Your task to perform on an android device: check google app version Image 0: 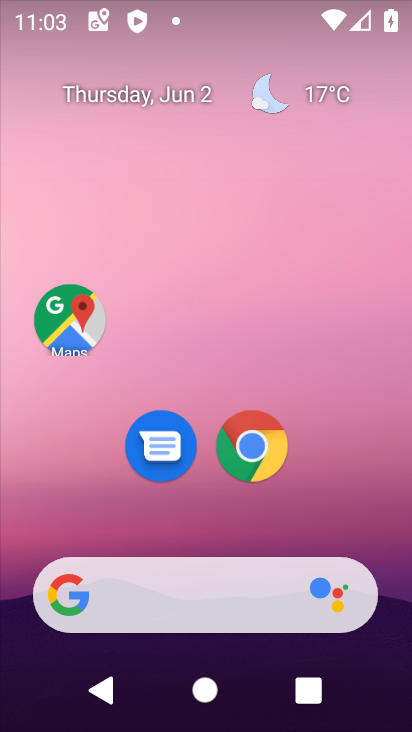
Step 0: drag from (381, 515) to (385, 235)
Your task to perform on an android device: check google app version Image 1: 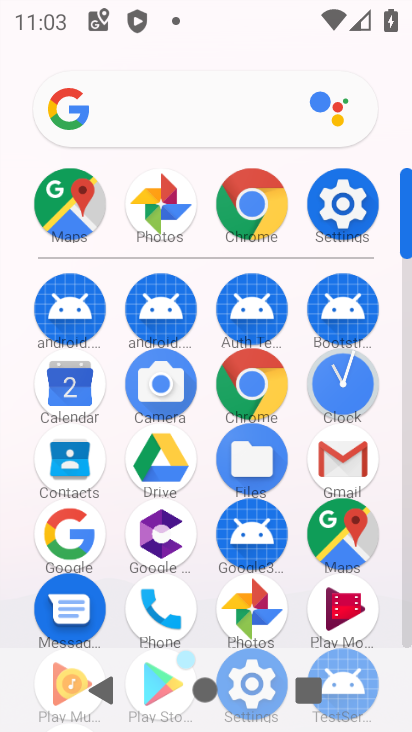
Step 1: click (84, 533)
Your task to perform on an android device: check google app version Image 2: 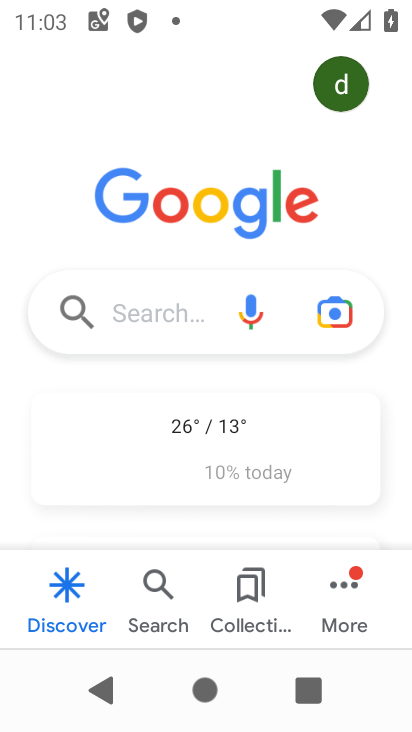
Step 2: click (344, 636)
Your task to perform on an android device: check google app version Image 3: 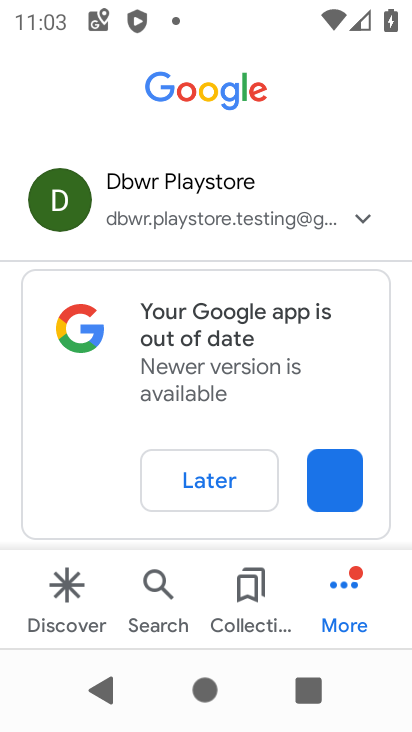
Step 3: click (346, 616)
Your task to perform on an android device: check google app version Image 4: 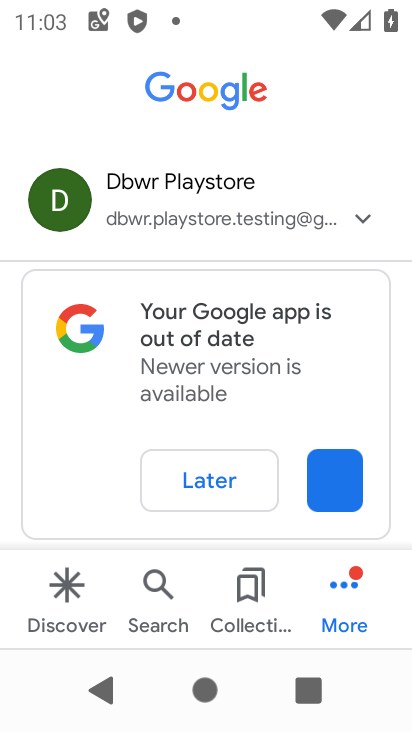
Step 4: click (353, 582)
Your task to perform on an android device: check google app version Image 5: 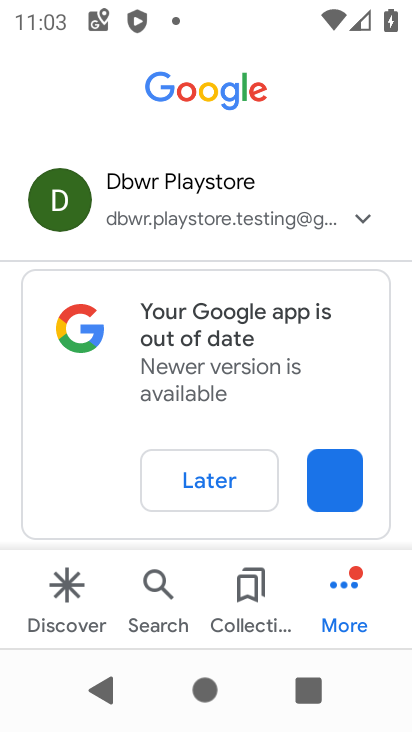
Step 5: drag from (354, 357) to (354, 163)
Your task to perform on an android device: check google app version Image 6: 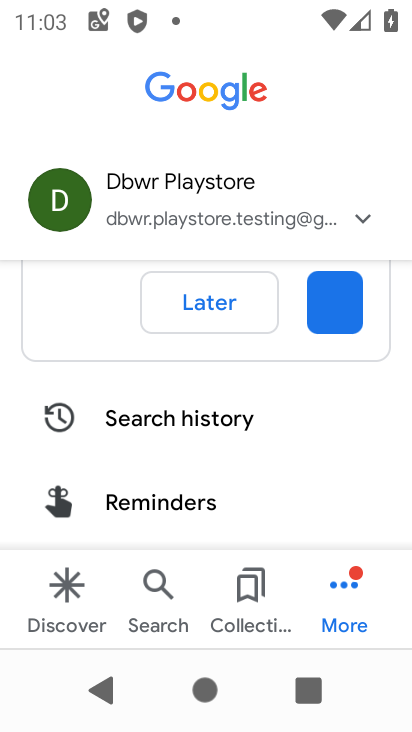
Step 6: drag from (282, 485) to (280, 262)
Your task to perform on an android device: check google app version Image 7: 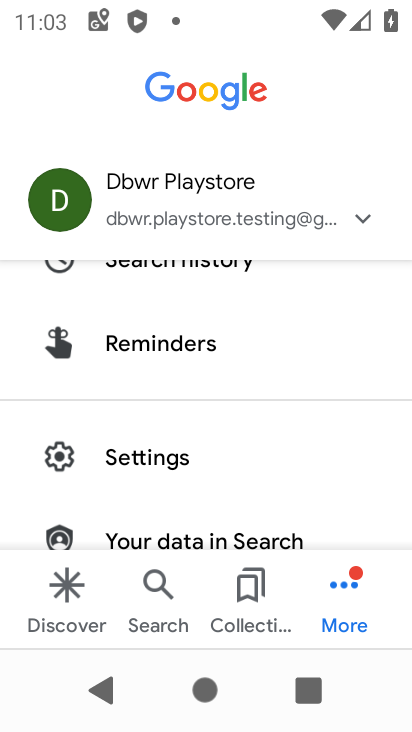
Step 7: click (195, 470)
Your task to perform on an android device: check google app version Image 8: 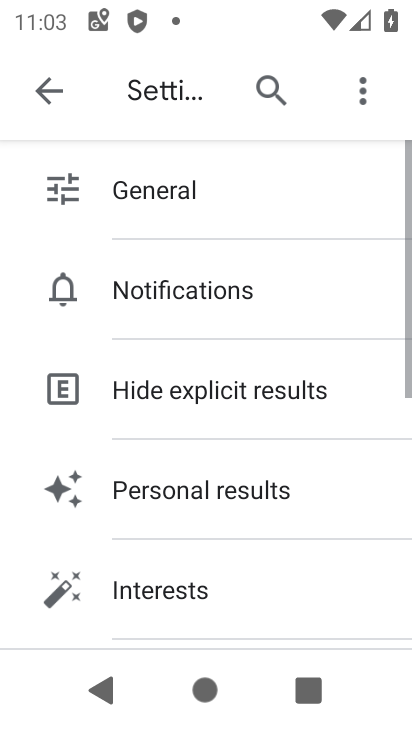
Step 8: drag from (312, 536) to (348, 371)
Your task to perform on an android device: check google app version Image 9: 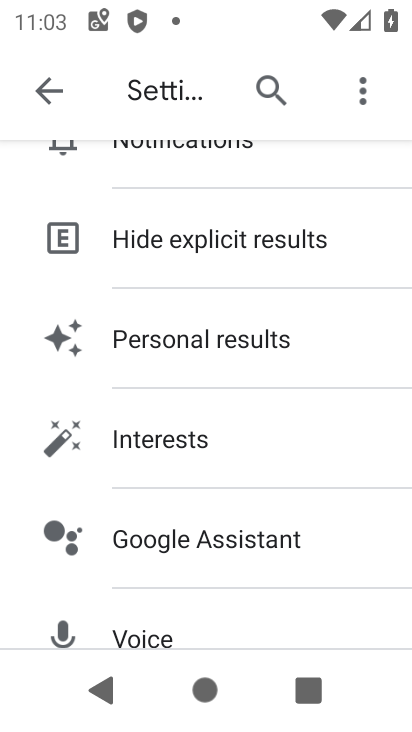
Step 9: drag from (350, 525) to (352, 270)
Your task to perform on an android device: check google app version Image 10: 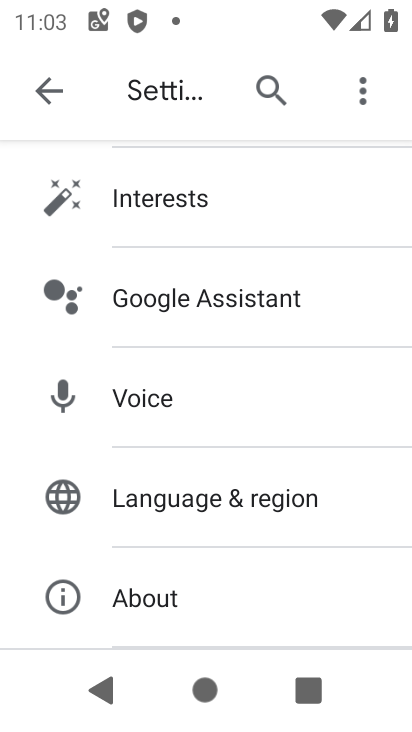
Step 10: click (251, 604)
Your task to perform on an android device: check google app version Image 11: 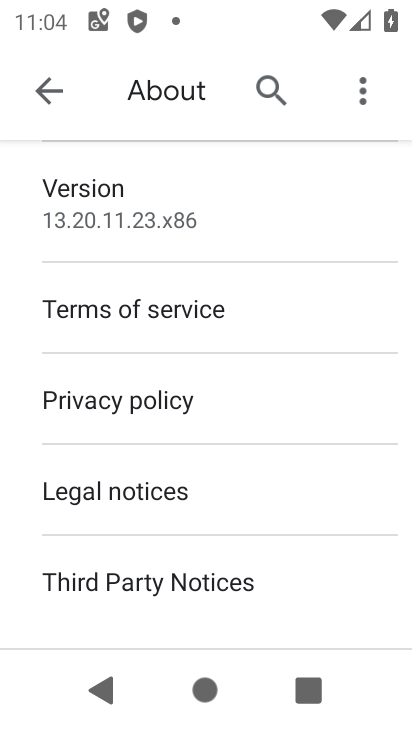
Step 11: task complete